Your task to perform on an android device: open sync settings in chrome Image 0: 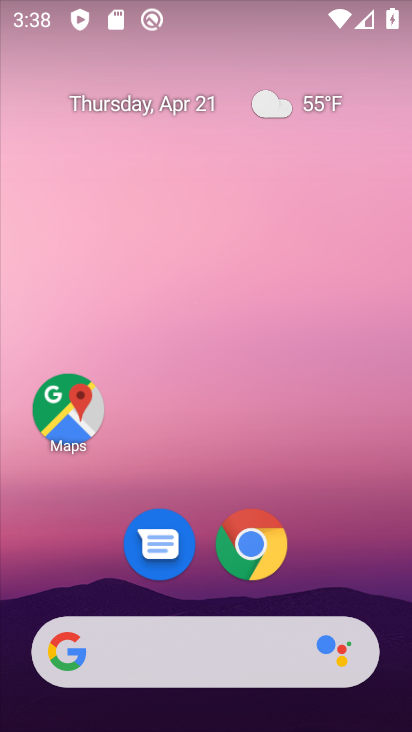
Step 0: drag from (177, 635) to (248, 11)
Your task to perform on an android device: open sync settings in chrome Image 1: 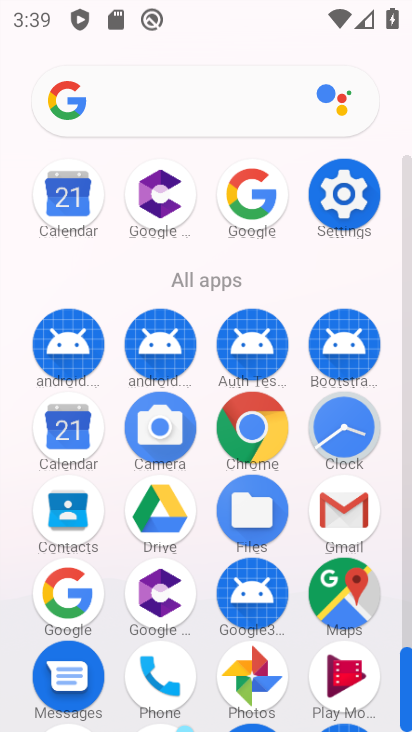
Step 1: click (256, 424)
Your task to perform on an android device: open sync settings in chrome Image 2: 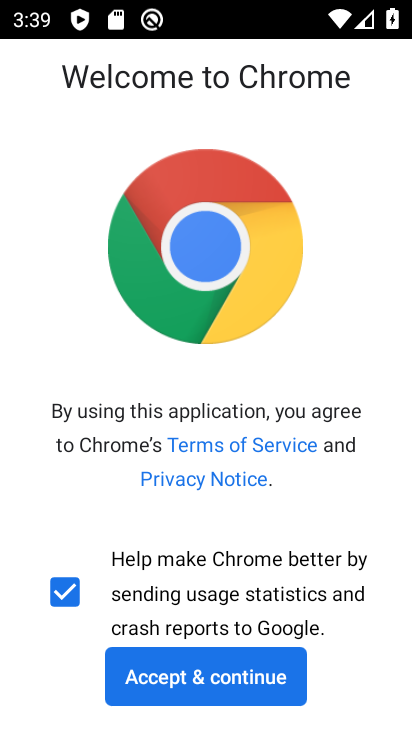
Step 2: click (193, 685)
Your task to perform on an android device: open sync settings in chrome Image 3: 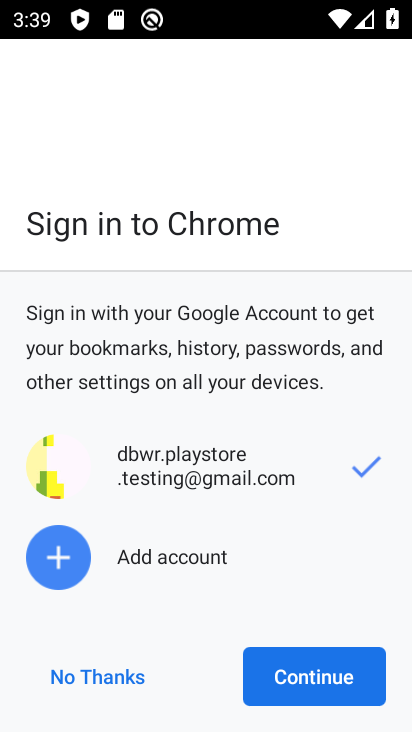
Step 3: click (262, 686)
Your task to perform on an android device: open sync settings in chrome Image 4: 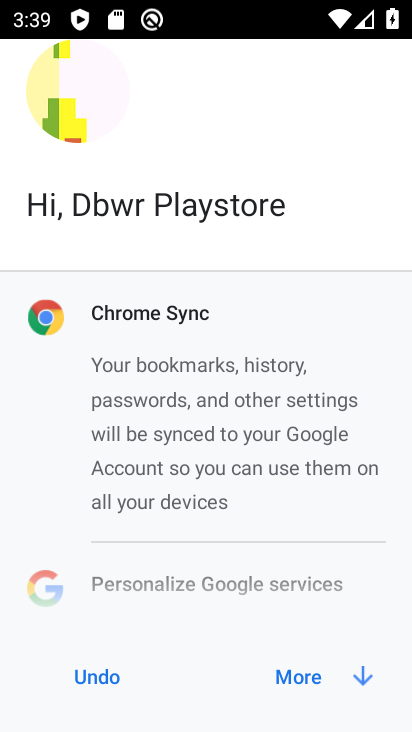
Step 4: click (262, 686)
Your task to perform on an android device: open sync settings in chrome Image 5: 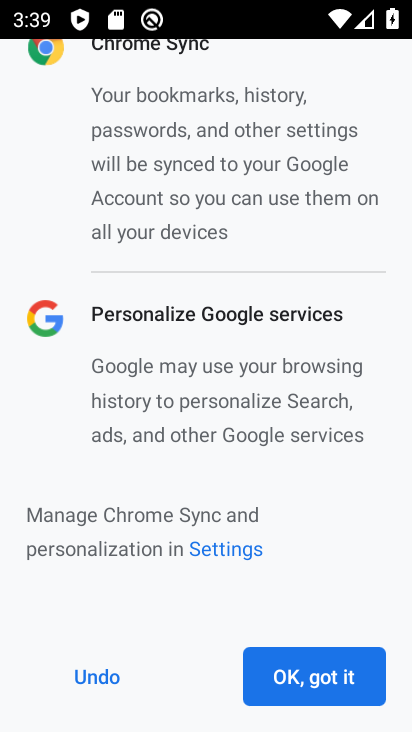
Step 5: click (297, 679)
Your task to perform on an android device: open sync settings in chrome Image 6: 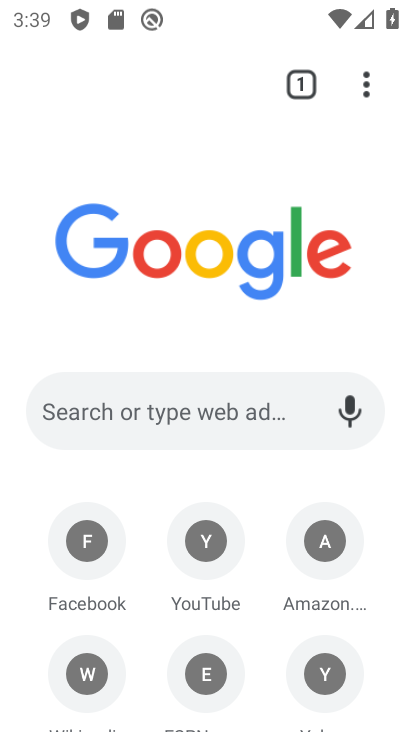
Step 6: drag from (361, 90) to (119, 597)
Your task to perform on an android device: open sync settings in chrome Image 7: 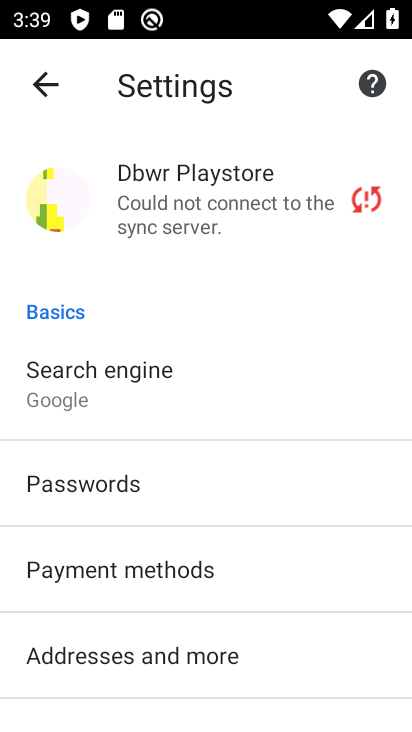
Step 7: click (208, 180)
Your task to perform on an android device: open sync settings in chrome Image 8: 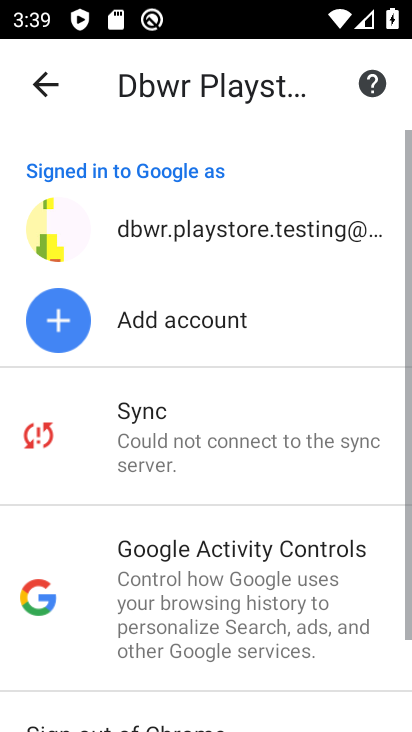
Step 8: click (173, 453)
Your task to perform on an android device: open sync settings in chrome Image 9: 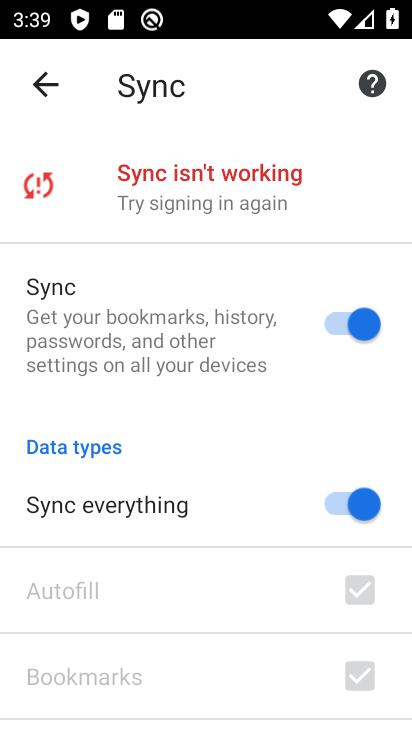
Step 9: task complete